Your task to perform on an android device: Open notification settings Image 0: 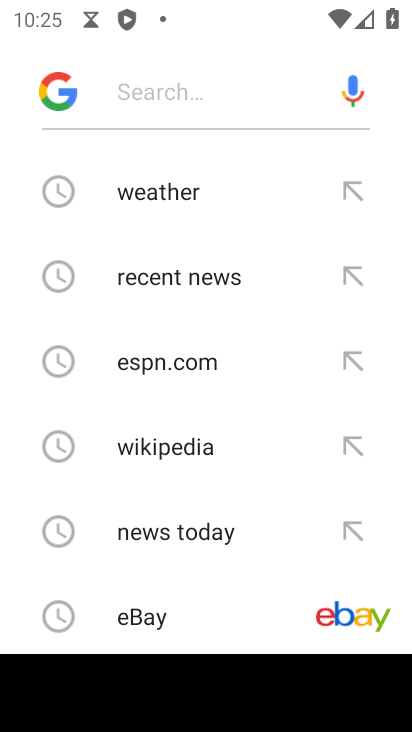
Step 0: press home button
Your task to perform on an android device: Open notification settings Image 1: 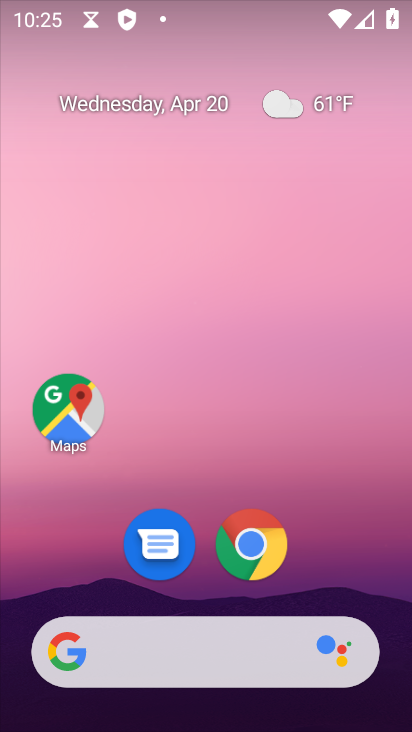
Step 1: drag from (137, 660) to (298, 60)
Your task to perform on an android device: Open notification settings Image 2: 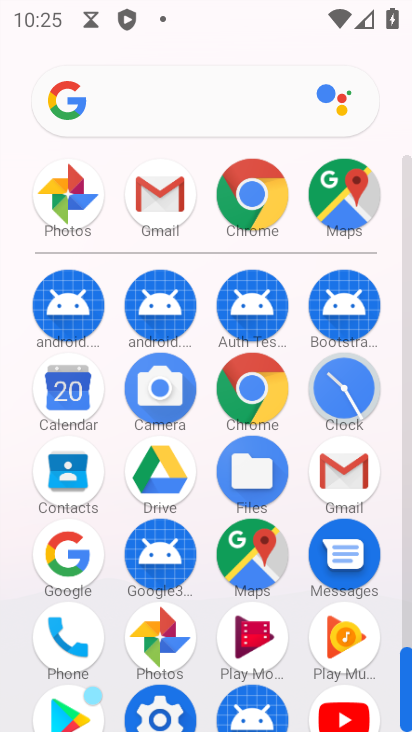
Step 2: drag from (195, 595) to (327, 138)
Your task to perform on an android device: Open notification settings Image 3: 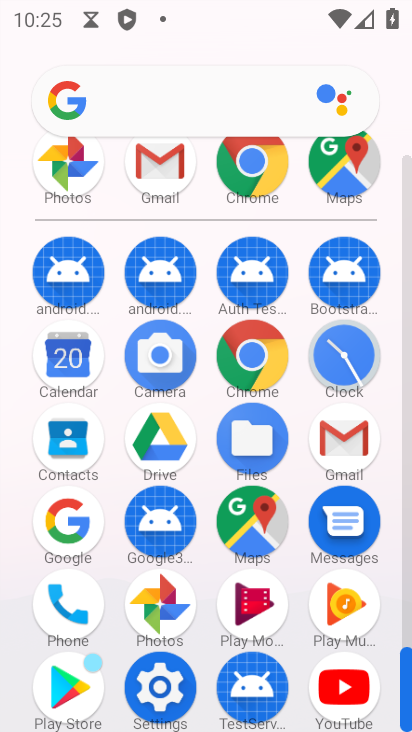
Step 3: click (161, 686)
Your task to perform on an android device: Open notification settings Image 4: 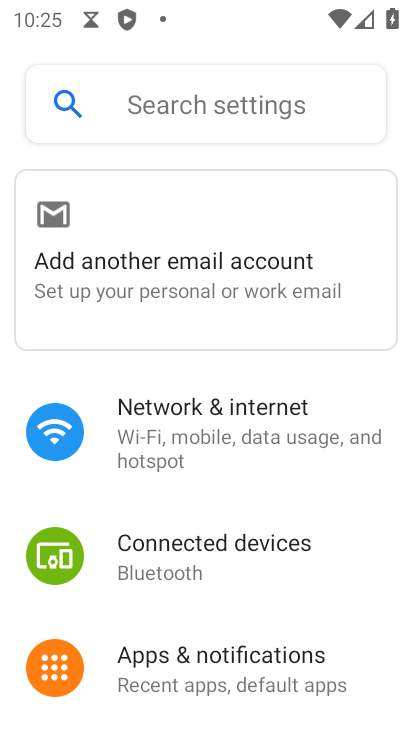
Step 4: drag from (226, 589) to (359, 328)
Your task to perform on an android device: Open notification settings Image 5: 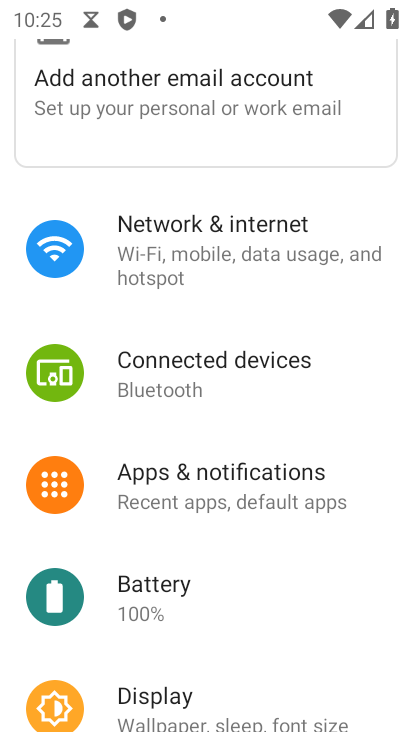
Step 5: click (259, 489)
Your task to perform on an android device: Open notification settings Image 6: 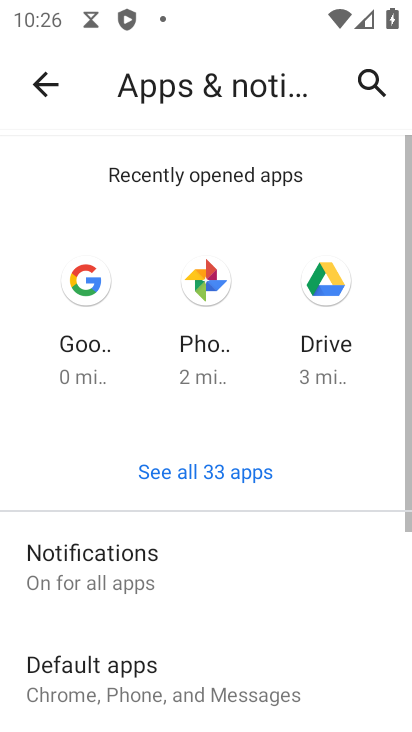
Step 6: click (94, 575)
Your task to perform on an android device: Open notification settings Image 7: 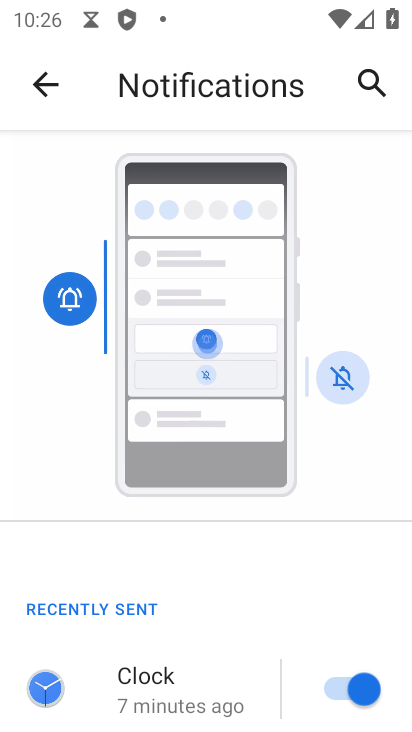
Step 7: task complete